Your task to perform on an android device: toggle wifi Image 0: 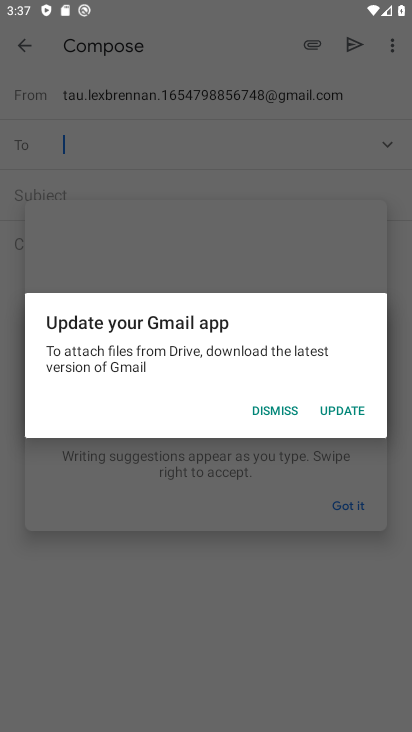
Step 0: press home button
Your task to perform on an android device: toggle wifi Image 1: 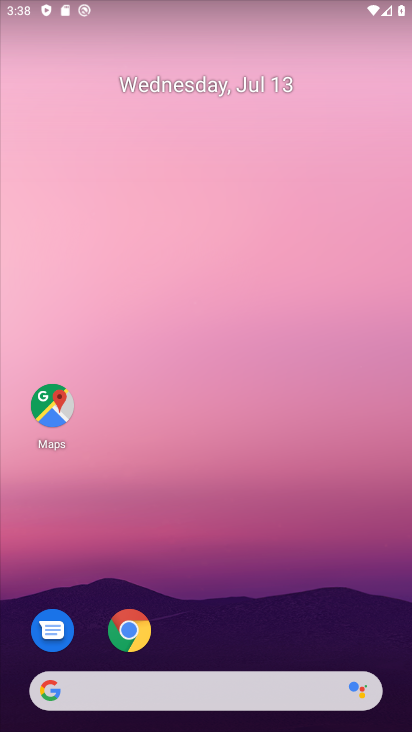
Step 1: drag from (247, 538) to (266, 106)
Your task to perform on an android device: toggle wifi Image 2: 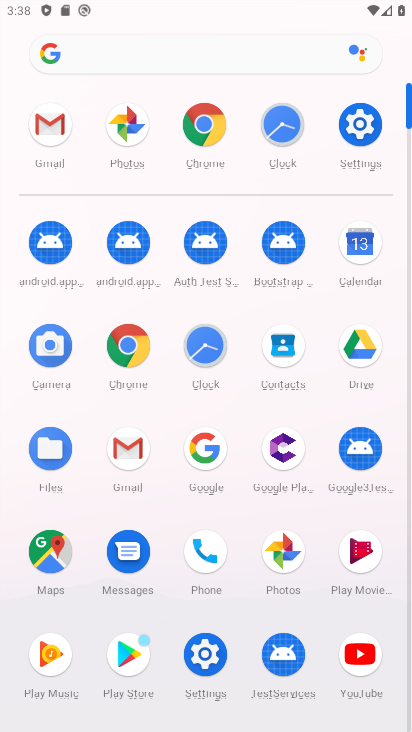
Step 2: click (361, 122)
Your task to perform on an android device: toggle wifi Image 3: 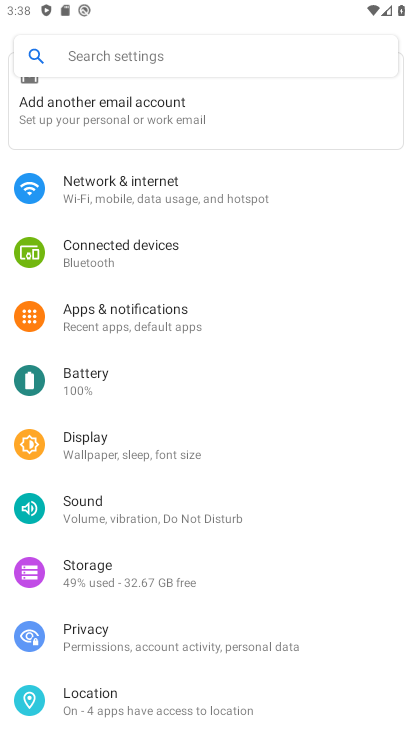
Step 3: click (132, 178)
Your task to perform on an android device: toggle wifi Image 4: 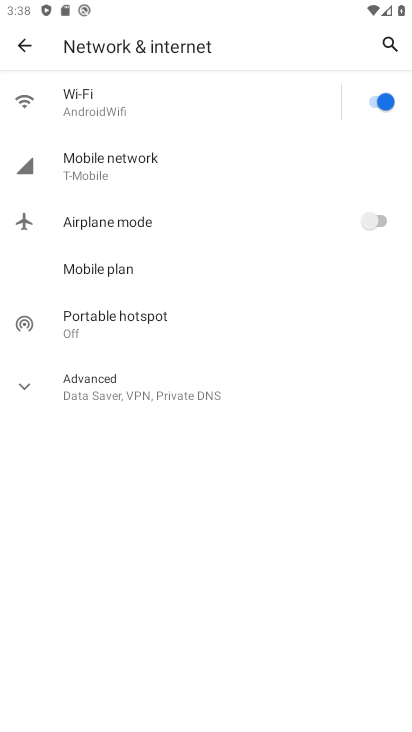
Step 4: click (385, 100)
Your task to perform on an android device: toggle wifi Image 5: 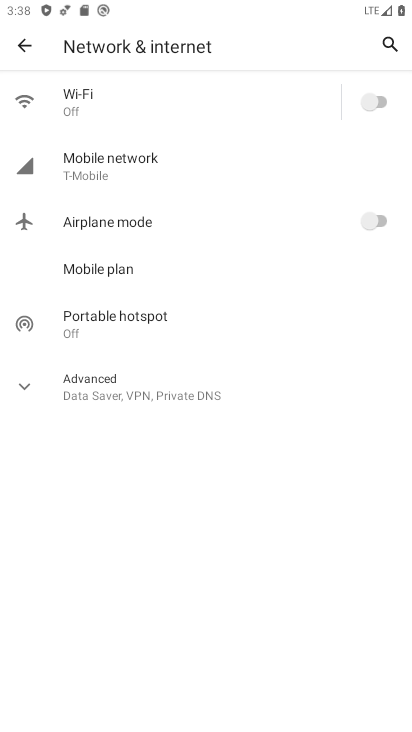
Step 5: task complete